Your task to perform on an android device: move a message to another label in the gmail app Image 0: 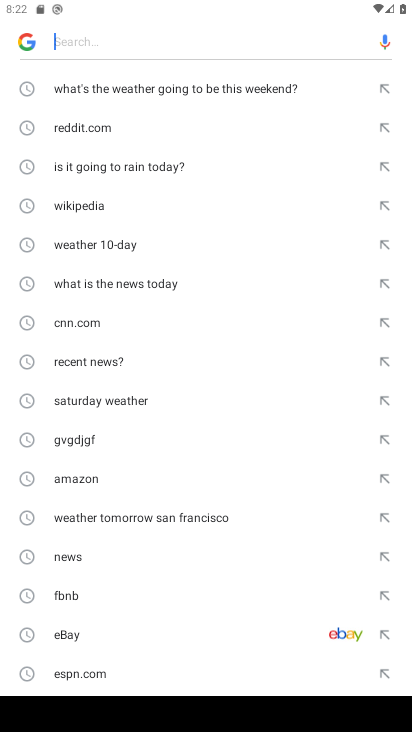
Step 0: press home button
Your task to perform on an android device: move a message to another label in the gmail app Image 1: 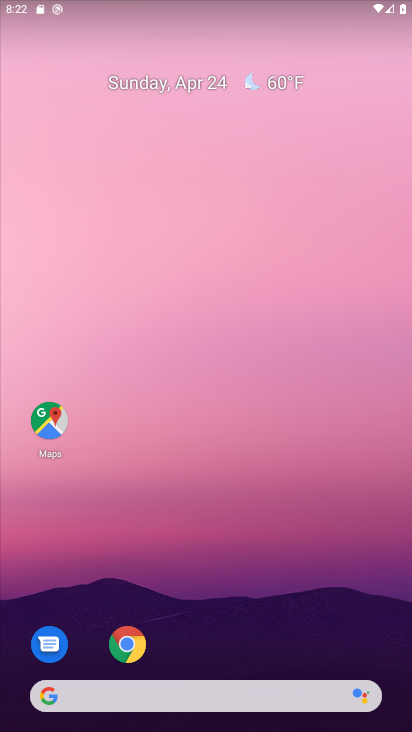
Step 1: drag from (208, 629) to (230, 73)
Your task to perform on an android device: move a message to another label in the gmail app Image 2: 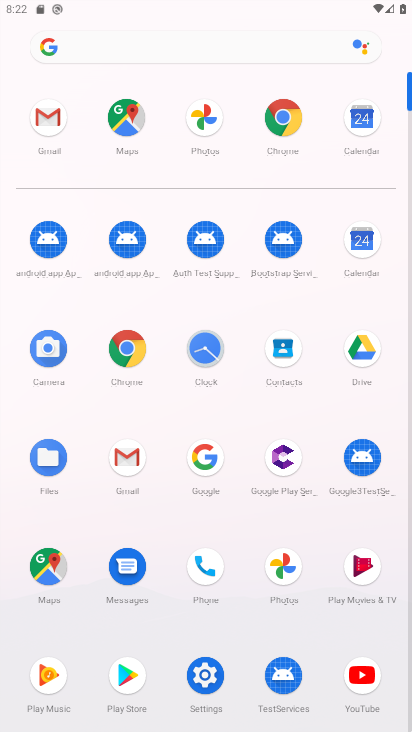
Step 2: click (124, 451)
Your task to perform on an android device: move a message to another label in the gmail app Image 3: 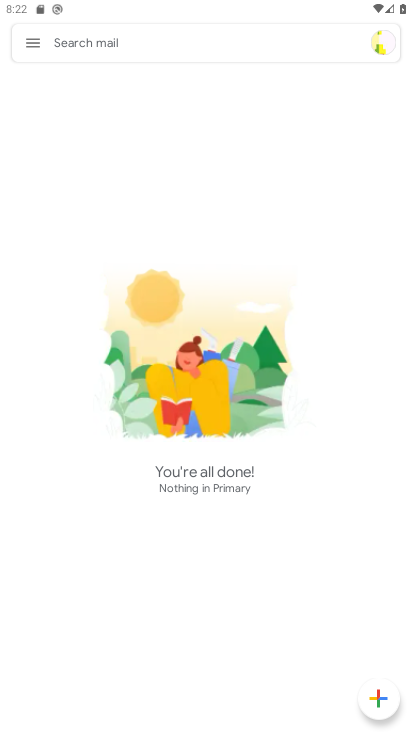
Step 3: click (31, 37)
Your task to perform on an android device: move a message to another label in the gmail app Image 4: 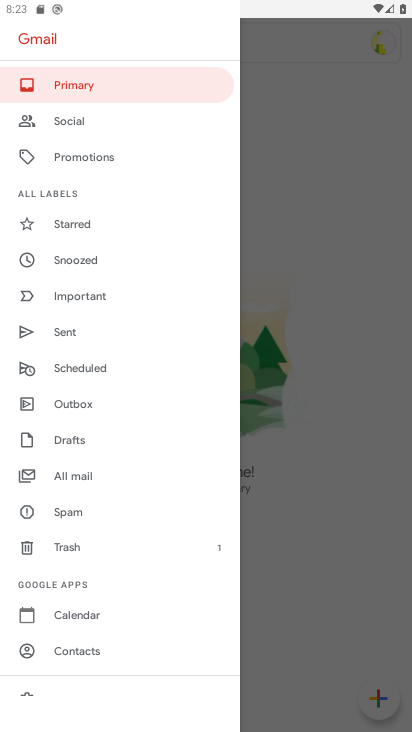
Step 4: click (85, 467)
Your task to perform on an android device: move a message to another label in the gmail app Image 5: 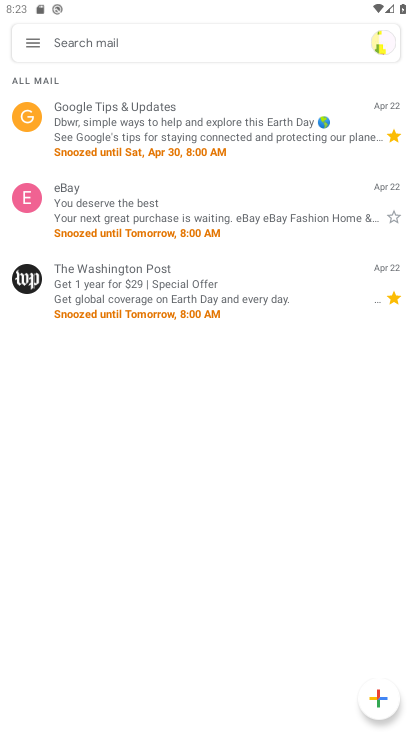
Step 5: click (30, 113)
Your task to perform on an android device: move a message to another label in the gmail app Image 6: 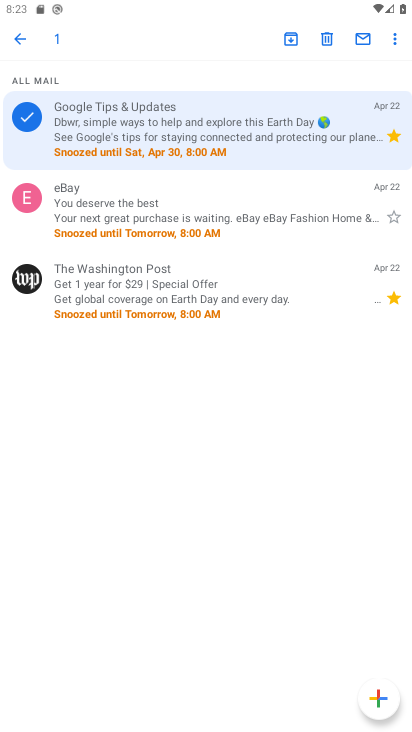
Step 6: click (400, 37)
Your task to perform on an android device: move a message to another label in the gmail app Image 7: 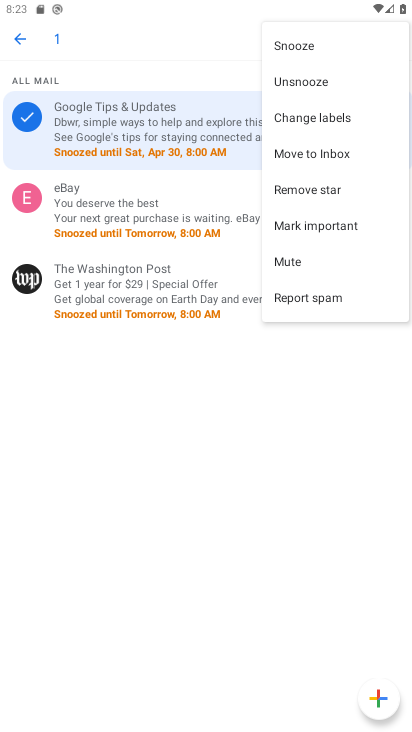
Step 7: click (319, 160)
Your task to perform on an android device: move a message to another label in the gmail app Image 8: 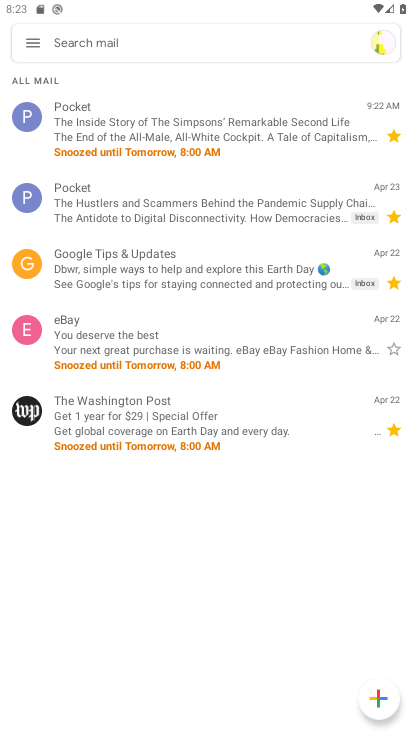
Step 8: task complete